Your task to perform on an android device: Open accessibility settings Image 0: 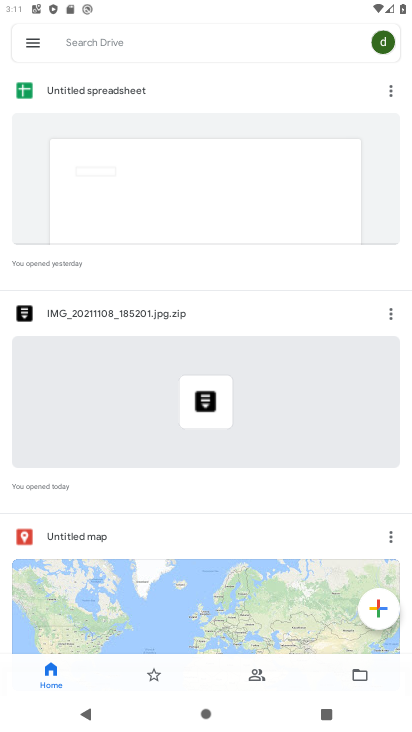
Step 0: press home button
Your task to perform on an android device: Open accessibility settings Image 1: 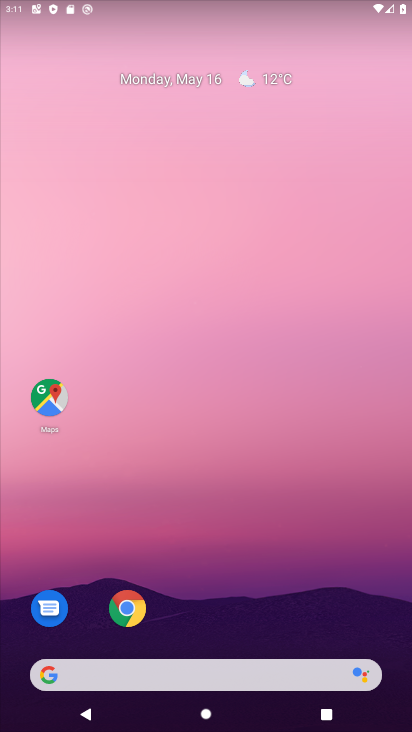
Step 1: drag from (131, 635) to (195, 258)
Your task to perform on an android device: Open accessibility settings Image 2: 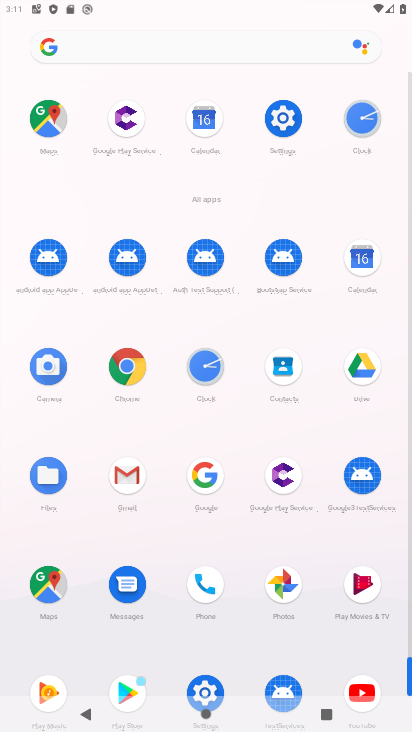
Step 2: click (286, 115)
Your task to perform on an android device: Open accessibility settings Image 3: 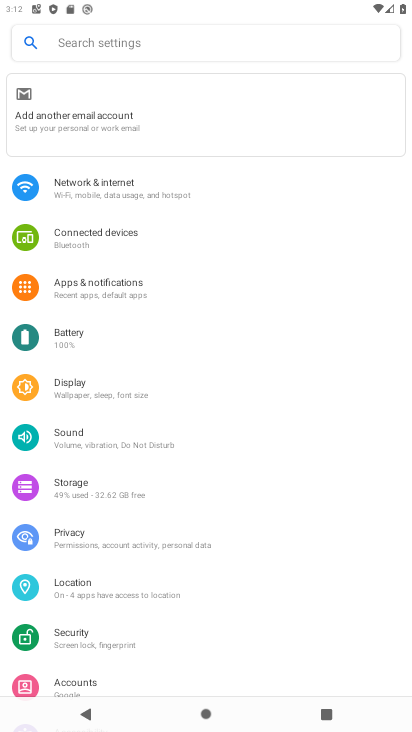
Step 3: drag from (191, 374) to (232, 97)
Your task to perform on an android device: Open accessibility settings Image 4: 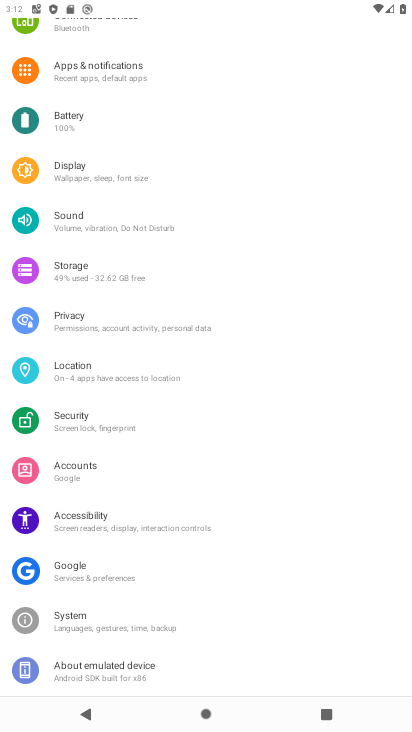
Step 4: drag from (161, 632) to (234, 408)
Your task to perform on an android device: Open accessibility settings Image 5: 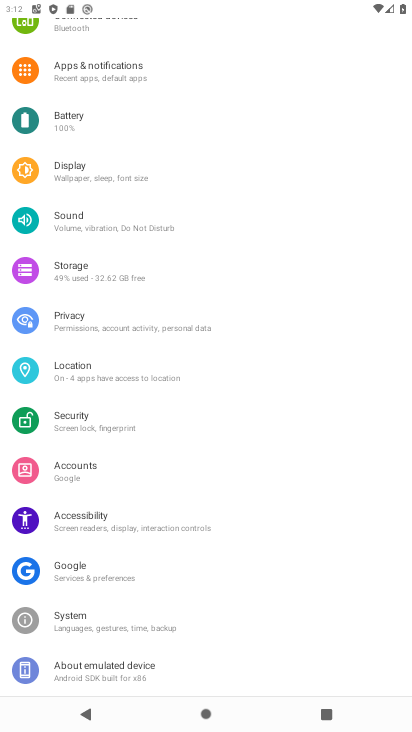
Step 5: click (101, 522)
Your task to perform on an android device: Open accessibility settings Image 6: 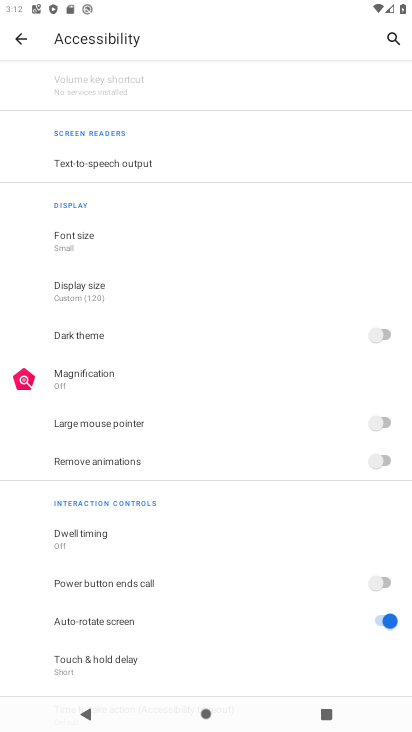
Step 6: task complete